Your task to perform on an android device: Open notification settings Image 0: 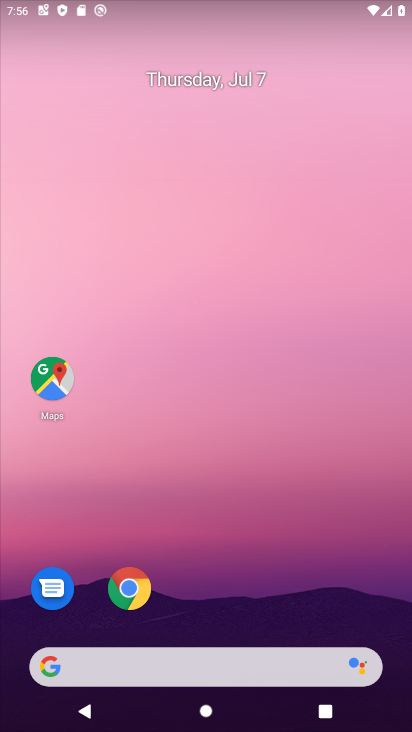
Step 0: drag from (204, 572) to (196, 144)
Your task to perform on an android device: Open notification settings Image 1: 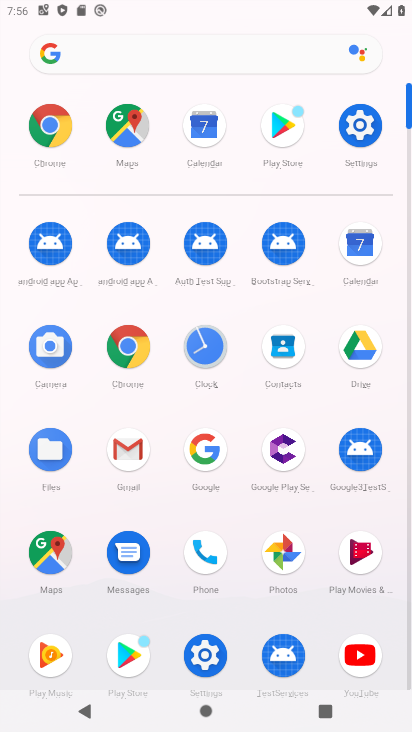
Step 1: click (343, 120)
Your task to perform on an android device: Open notification settings Image 2: 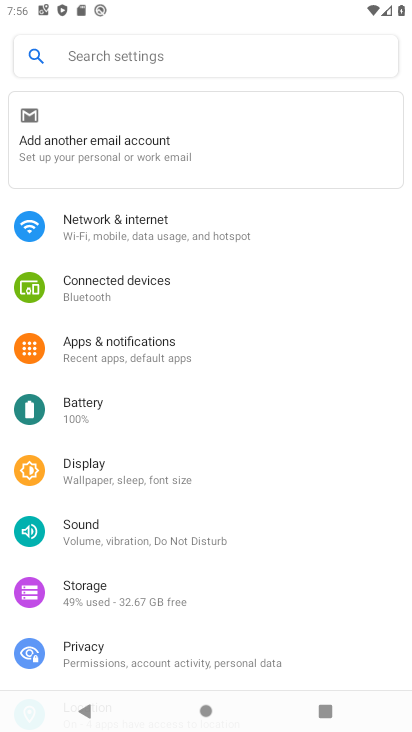
Step 2: click (174, 341)
Your task to perform on an android device: Open notification settings Image 3: 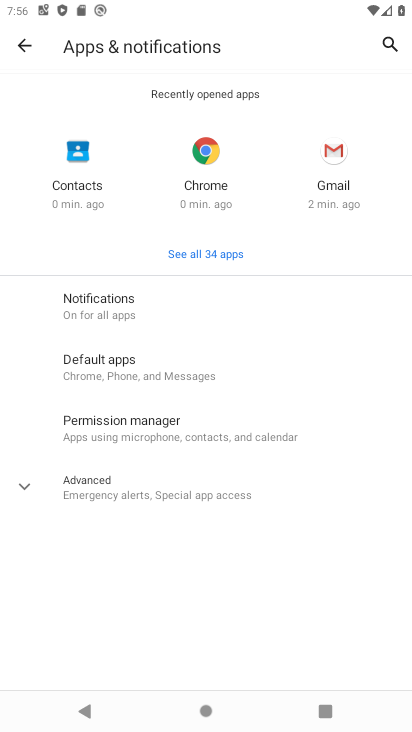
Step 3: click (170, 300)
Your task to perform on an android device: Open notification settings Image 4: 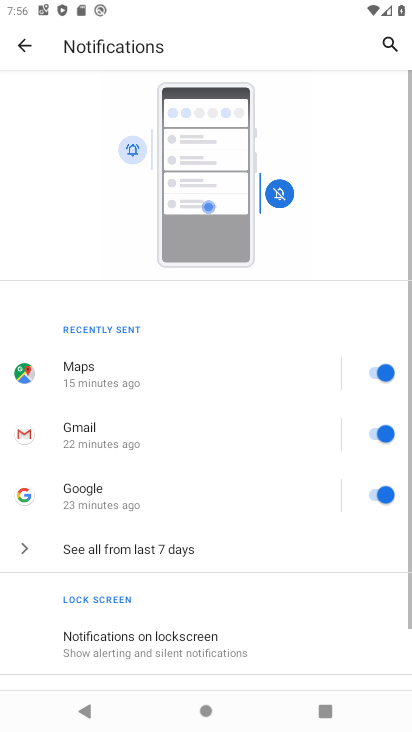
Step 4: task complete